Your task to perform on an android device: Search for flights from Buenos aires to Helsinki Image 0: 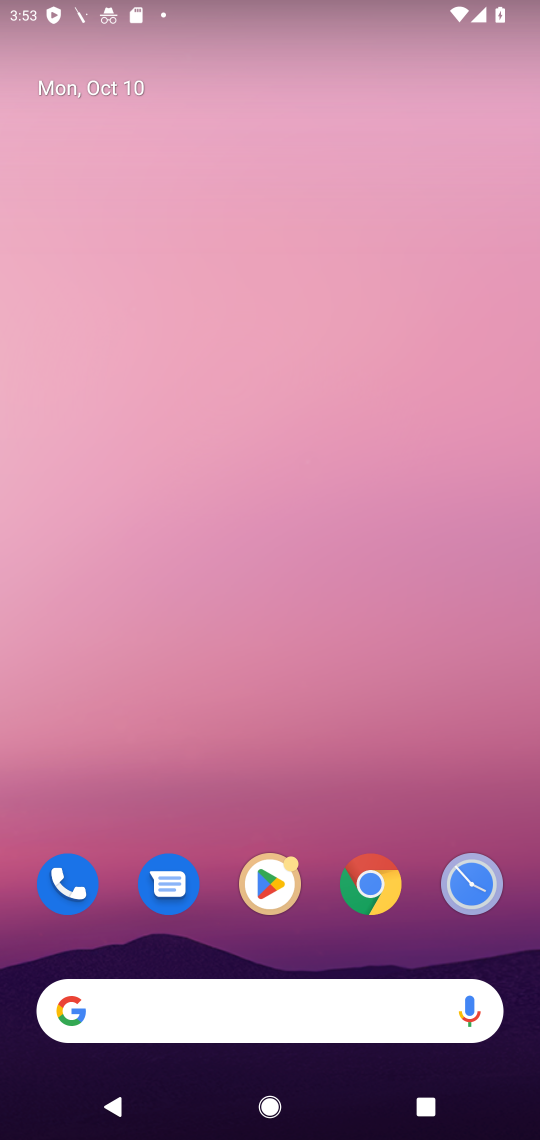
Step 0: click (244, 1011)
Your task to perform on an android device: Search for flights from Buenos aires to Helsinki Image 1: 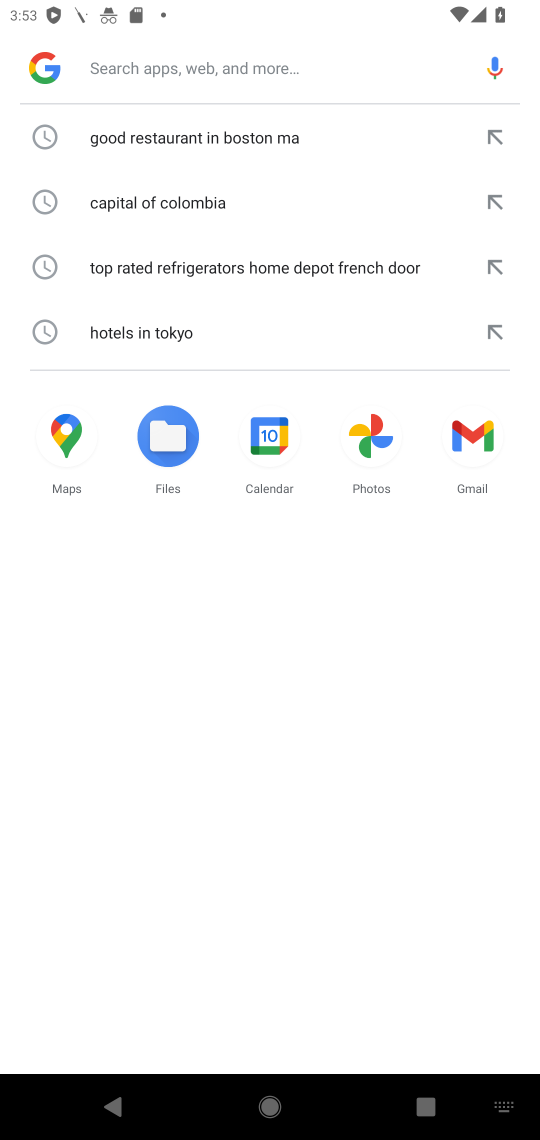
Step 1: type "flights from Buenos aires to Helsinki"
Your task to perform on an android device: Search for flights from Buenos aires to Helsinki Image 2: 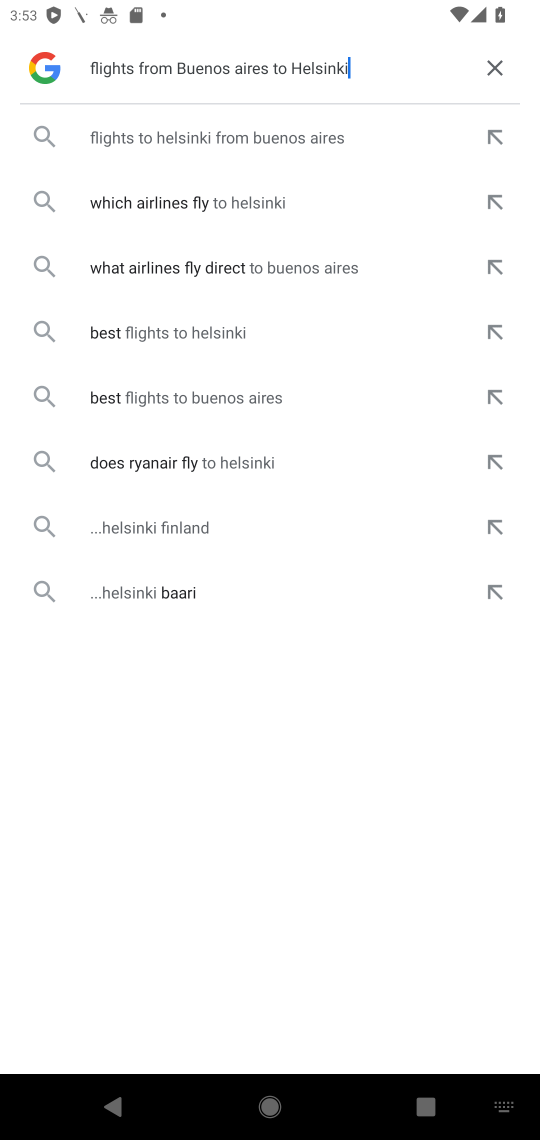
Step 2: click (206, 127)
Your task to perform on an android device: Search for flights from Buenos aires to Helsinki Image 3: 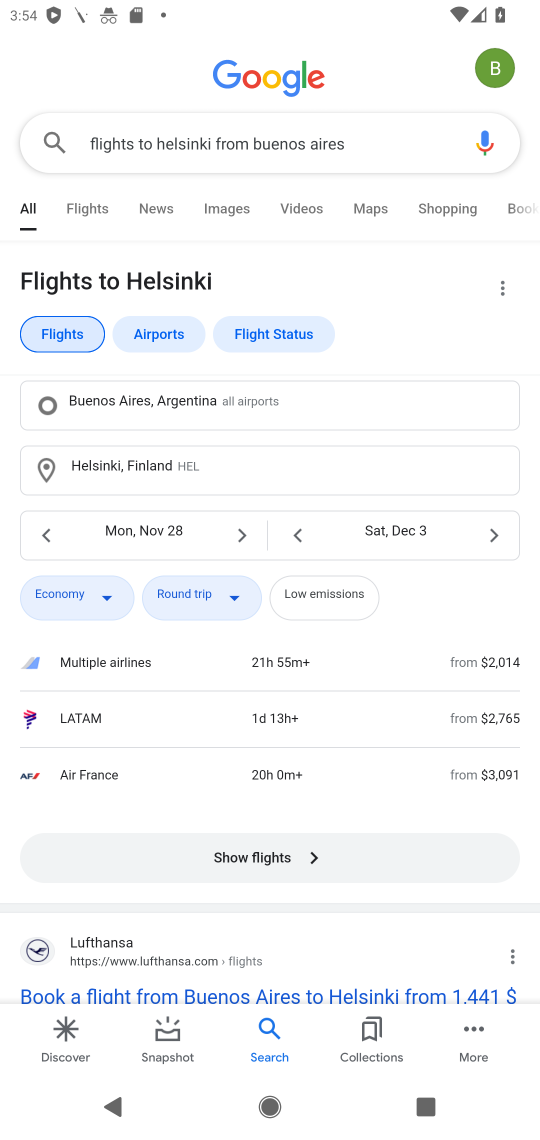
Step 3: task complete